Your task to perform on an android device: change the clock display to analog Image 0: 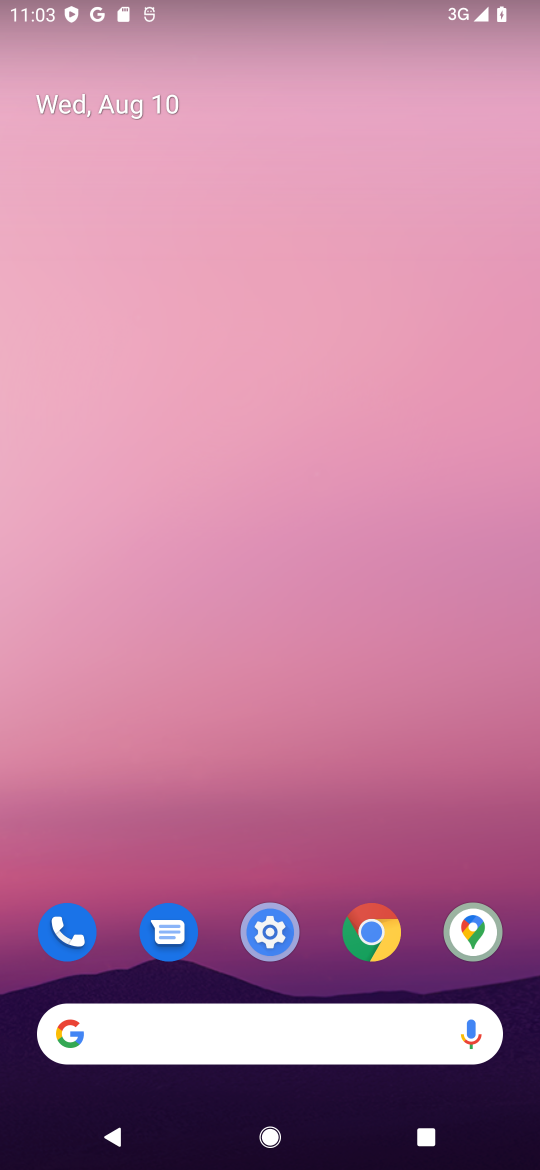
Step 0: drag from (292, 465) to (287, 140)
Your task to perform on an android device: change the clock display to analog Image 1: 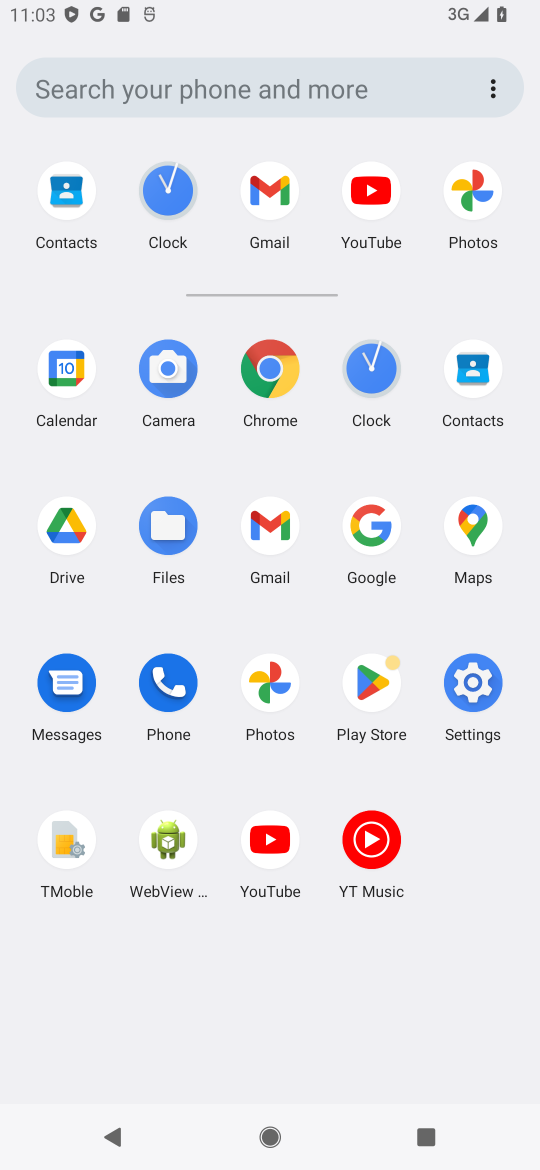
Step 1: click (186, 200)
Your task to perform on an android device: change the clock display to analog Image 2: 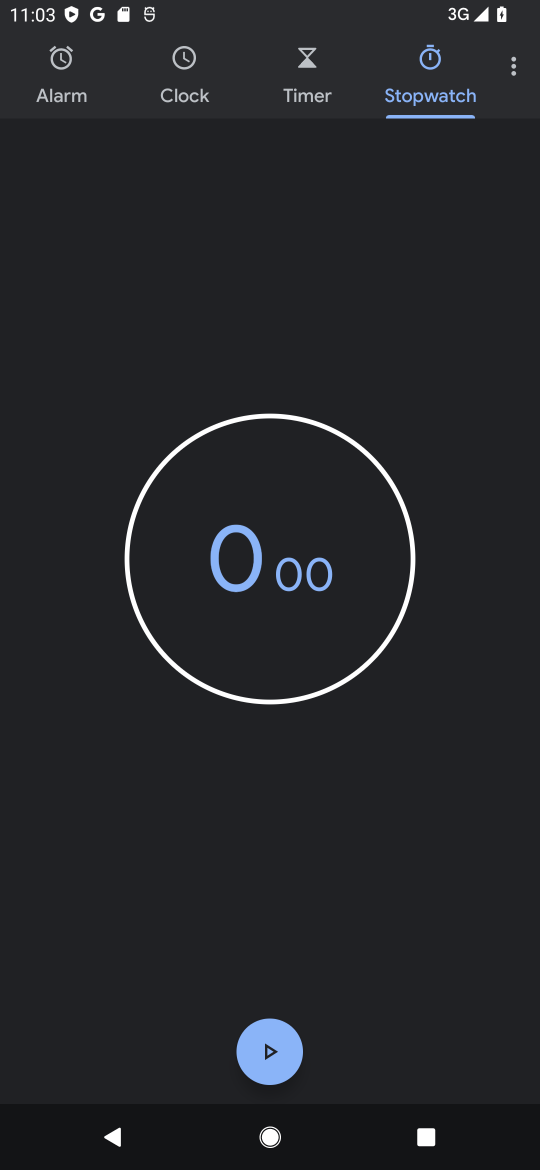
Step 2: click (520, 69)
Your task to perform on an android device: change the clock display to analog Image 3: 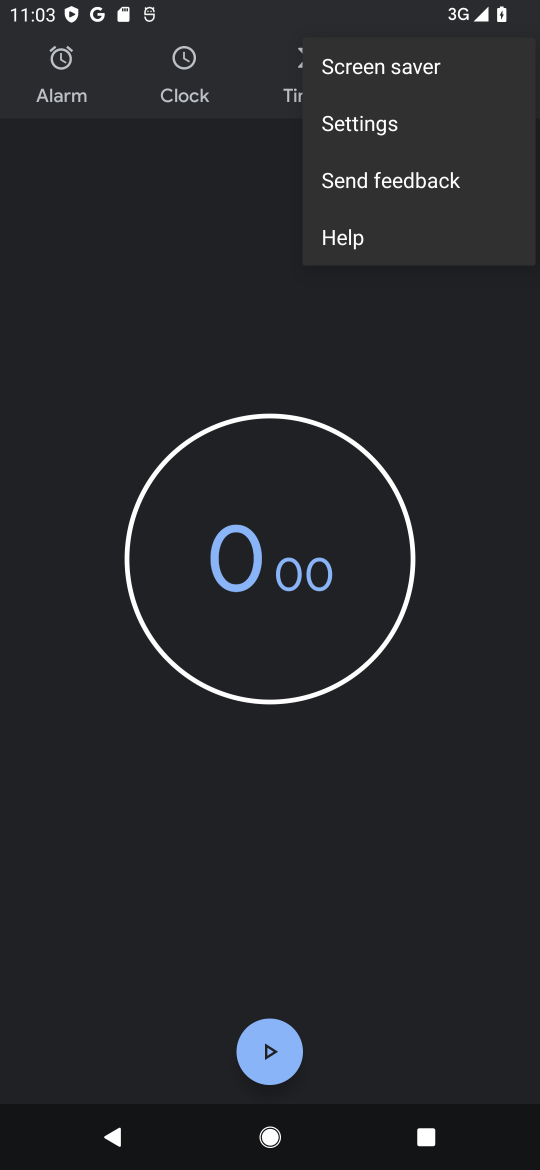
Step 3: click (369, 118)
Your task to perform on an android device: change the clock display to analog Image 4: 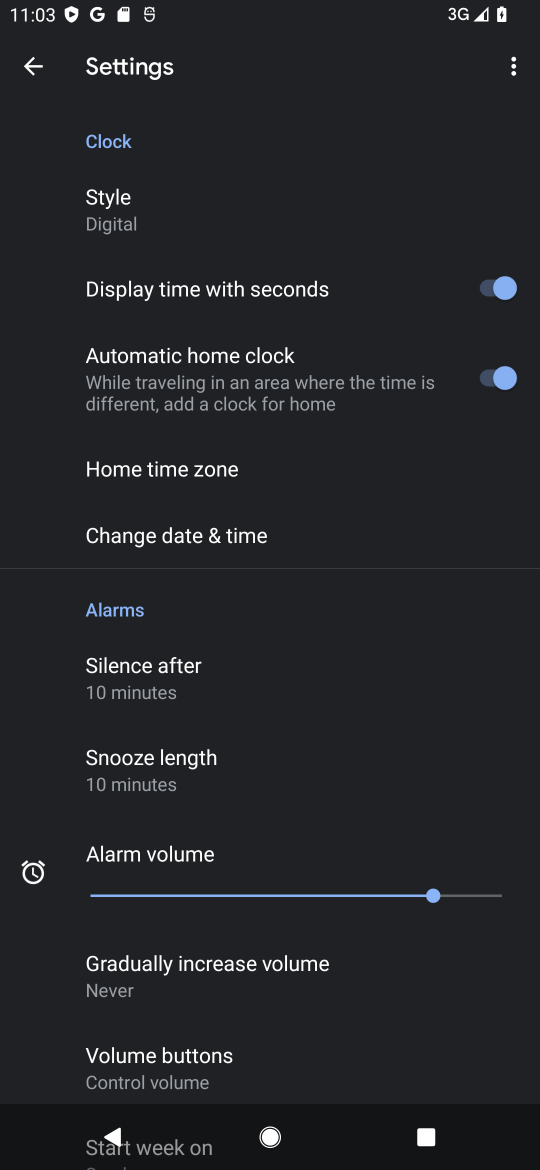
Step 4: click (122, 215)
Your task to perform on an android device: change the clock display to analog Image 5: 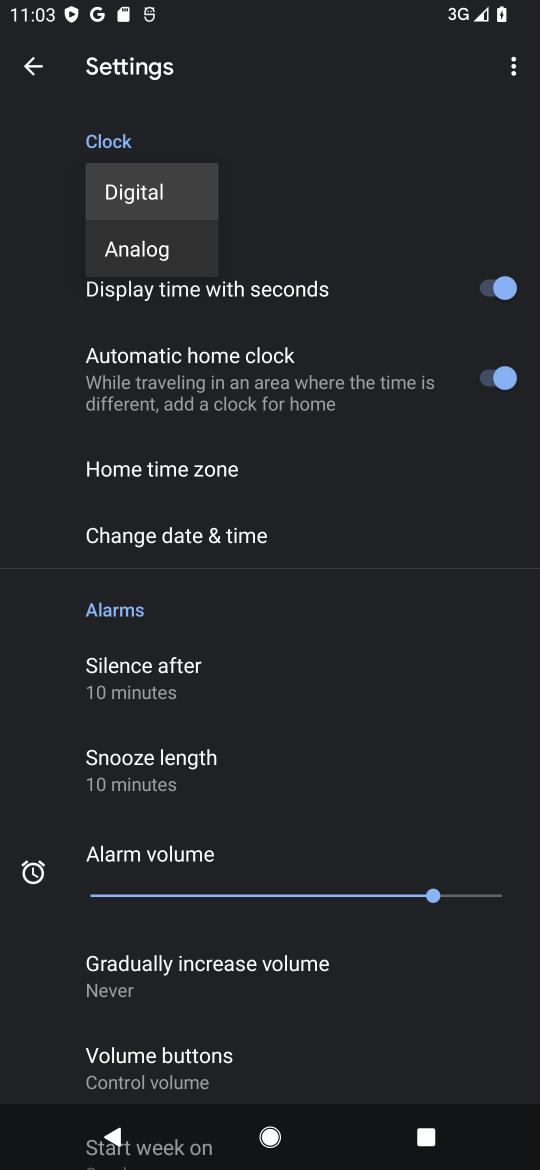
Step 5: click (143, 247)
Your task to perform on an android device: change the clock display to analog Image 6: 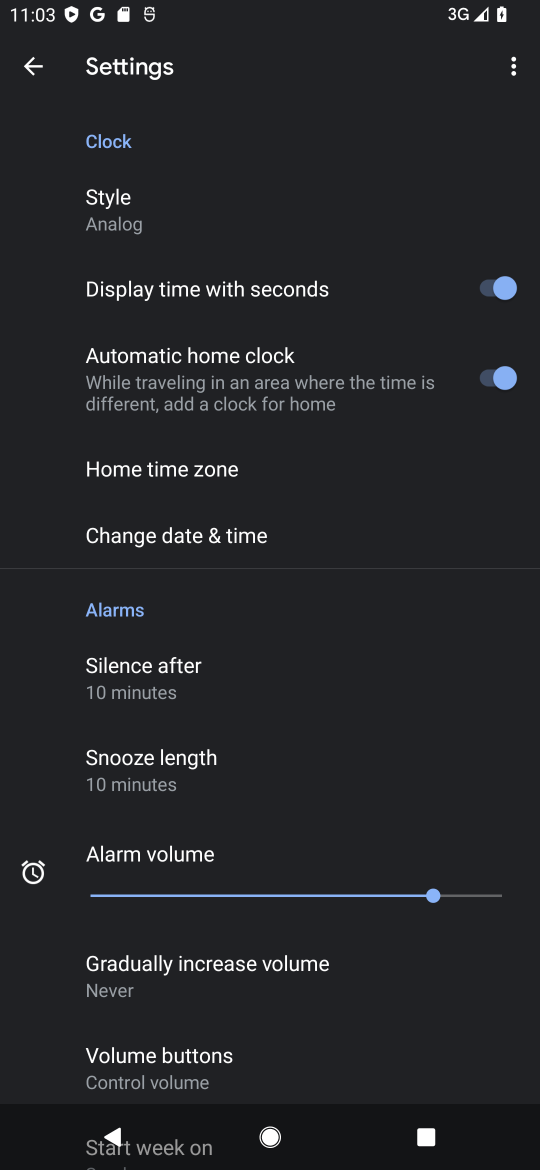
Step 6: task complete